Your task to perform on an android device: change keyboard looks Image 0: 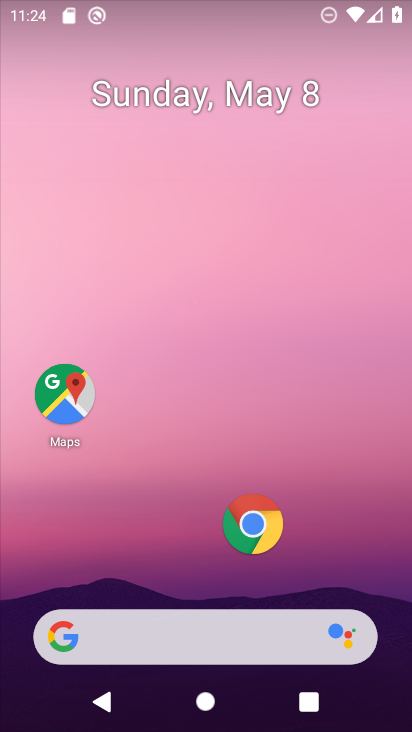
Step 0: drag from (196, 539) to (185, 30)
Your task to perform on an android device: change keyboard looks Image 1: 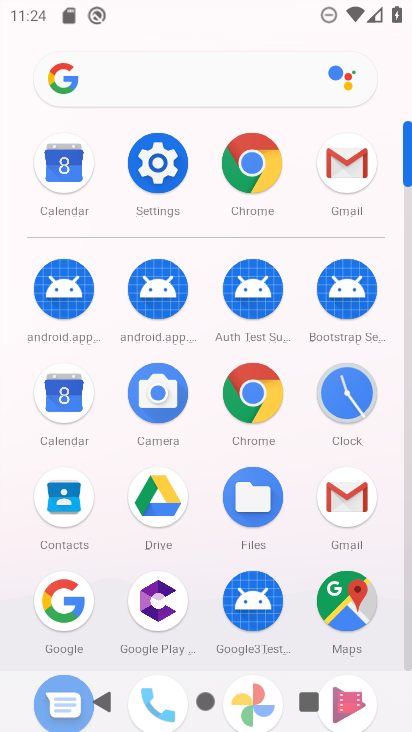
Step 1: click (154, 158)
Your task to perform on an android device: change keyboard looks Image 2: 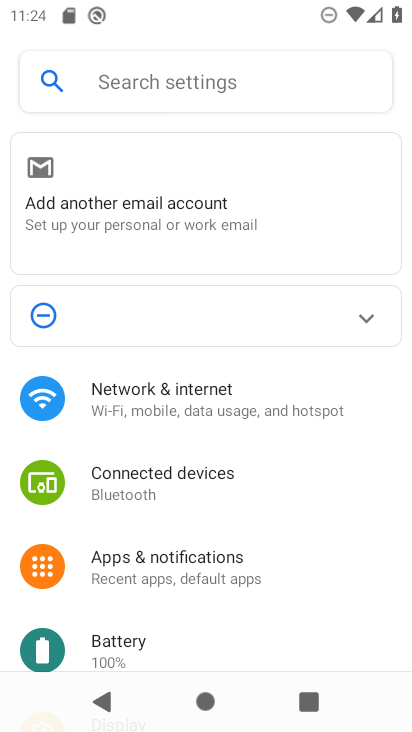
Step 2: drag from (247, 583) to (253, 22)
Your task to perform on an android device: change keyboard looks Image 3: 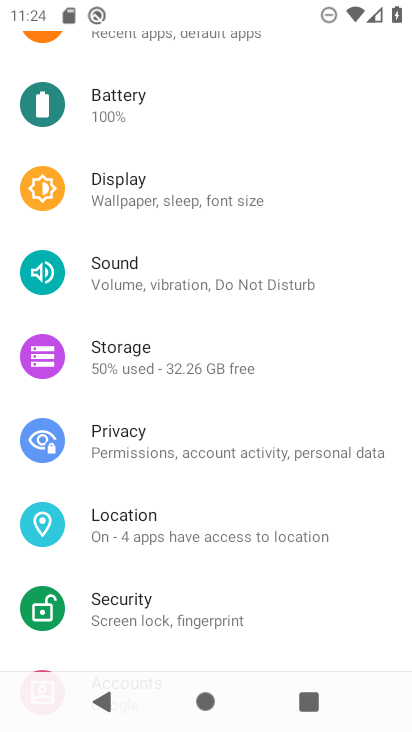
Step 3: drag from (230, 560) to (253, 94)
Your task to perform on an android device: change keyboard looks Image 4: 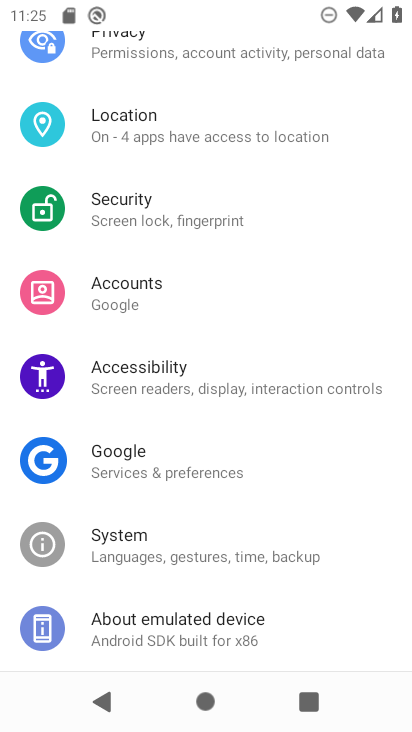
Step 4: click (227, 547)
Your task to perform on an android device: change keyboard looks Image 5: 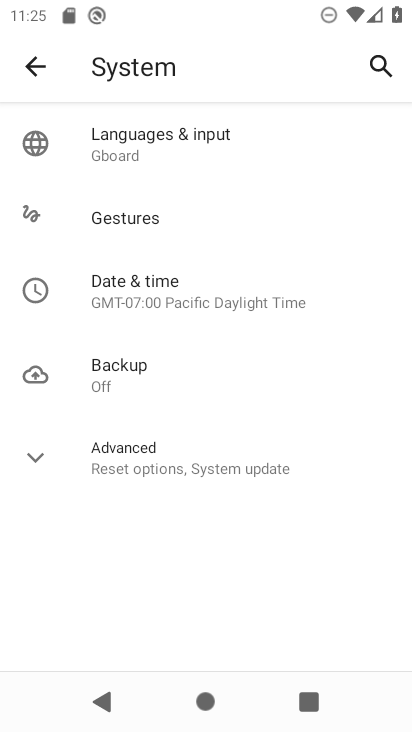
Step 5: click (172, 137)
Your task to perform on an android device: change keyboard looks Image 6: 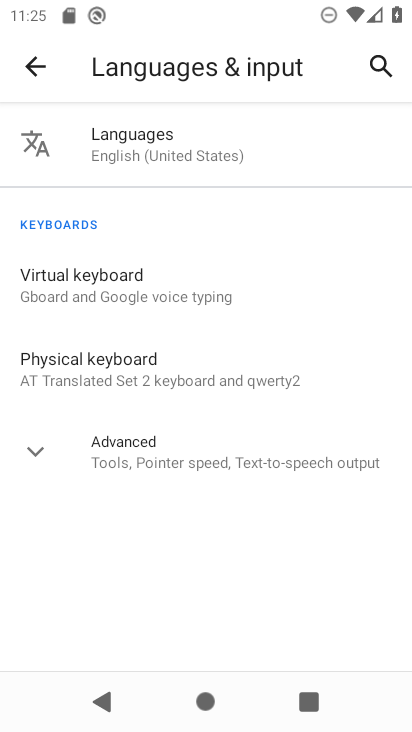
Step 6: click (147, 274)
Your task to perform on an android device: change keyboard looks Image 7: 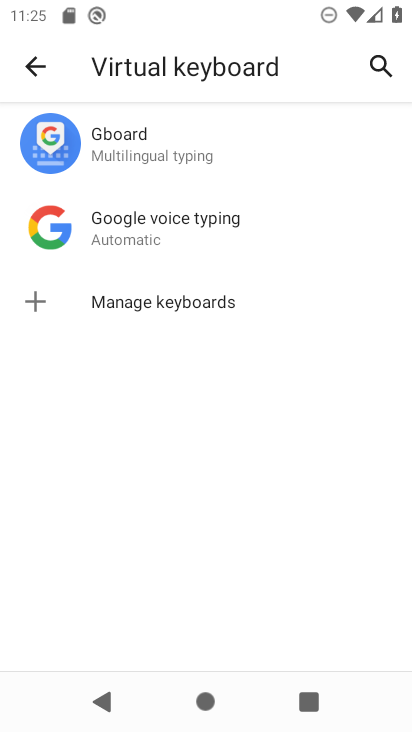
Step 7: click (166, 145)
Your task to perform on an android device: change keyboard looks Image 8: 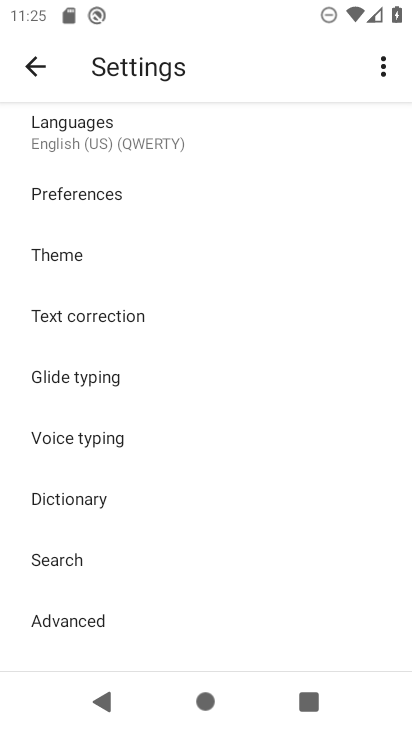
Step 8: click (101, 253)
Your task to perform on an android device: change keyboard looks Image 9: 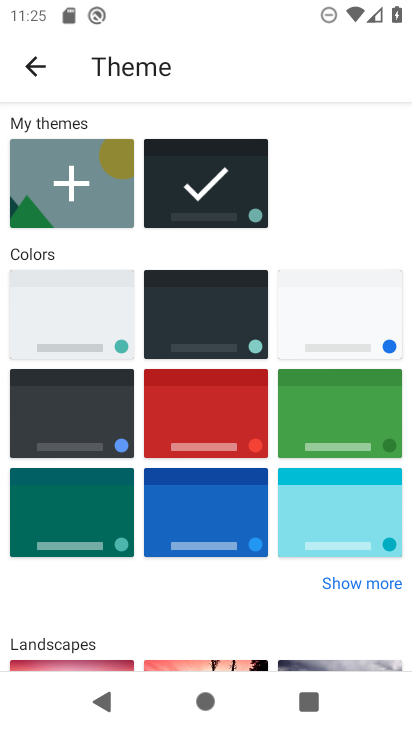
Step 9: click (114, 305)
Your task to perform on an android device: change keyboard looks Image 10: 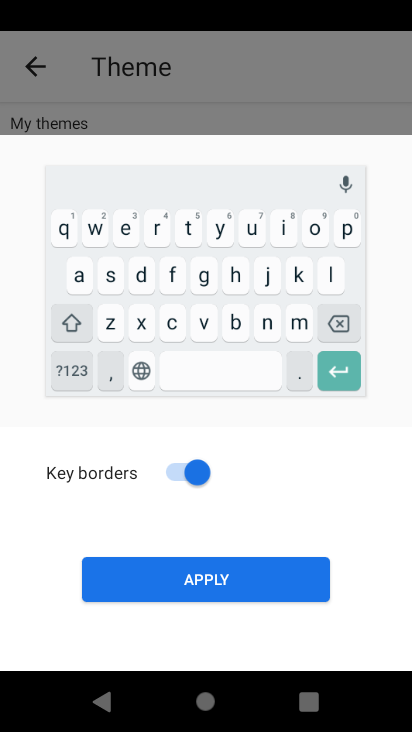
Step 10: click (241, 575)
Your task to perform on an android device: change keyboard looks Image 11: 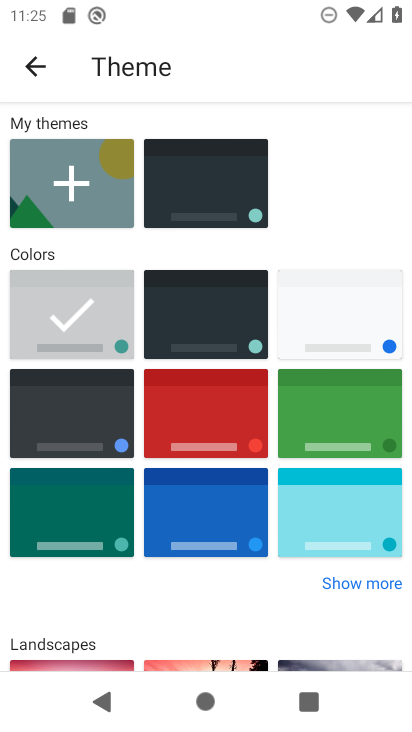
Step 11: task complete